Your task to perform on an android device: manage bookmarks in the chrome app Image 0: 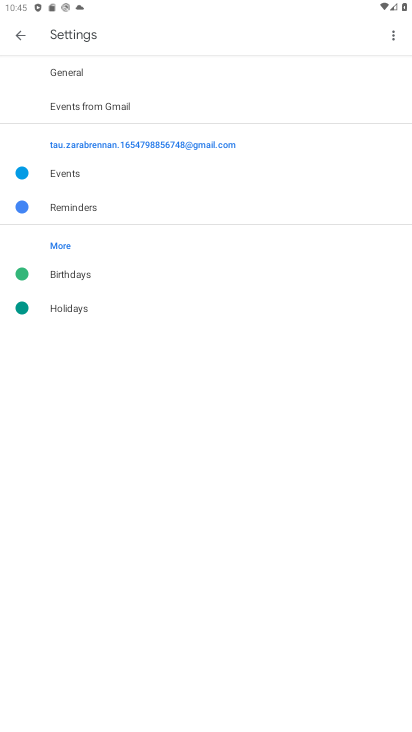
Step 0: task complete